Your task to perform on an android device: empty trash in the gmail app Image 0: 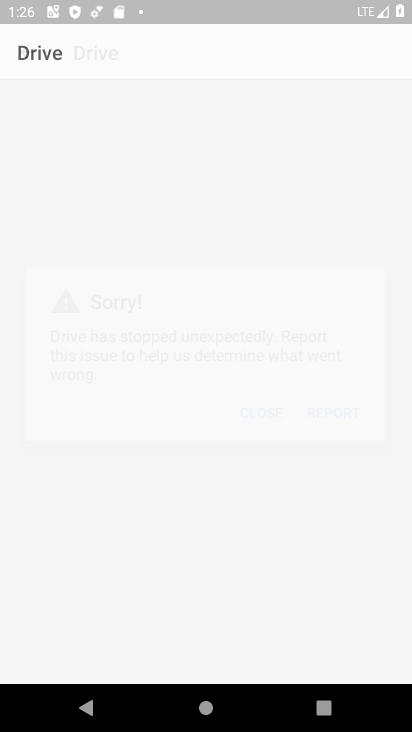
Step 0: click (57, 357)
Your task to perform on an android device: empty trash in the gmail app Image 1: 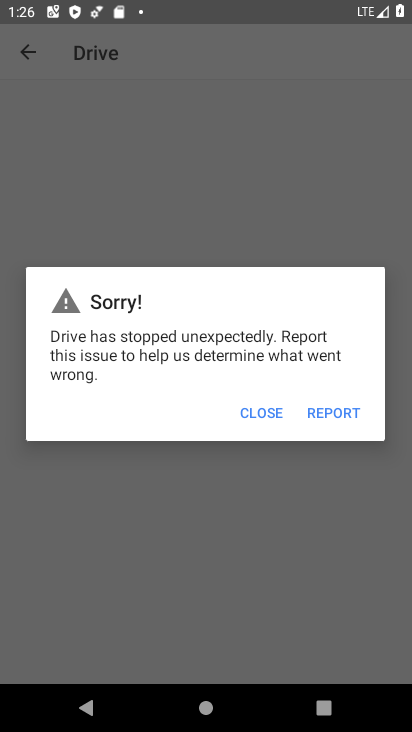
Step 1: click (269, 413)
Your task to perform on an android device: empty trash in the gmail app Image 2: 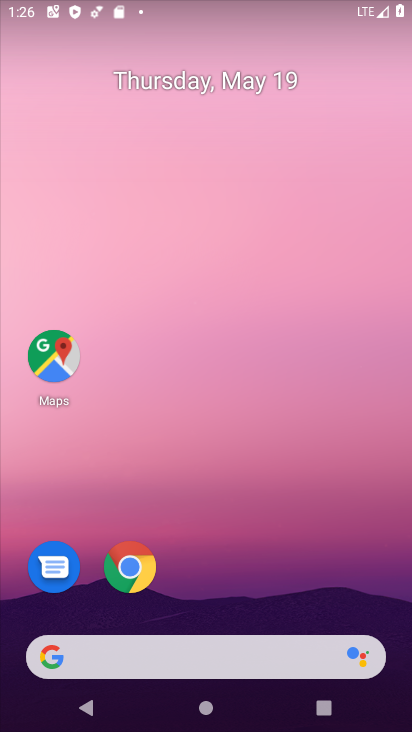
Step 2: click (48, 342)
Your task to perform on an android device: empty trash in the gmail app Image 3: 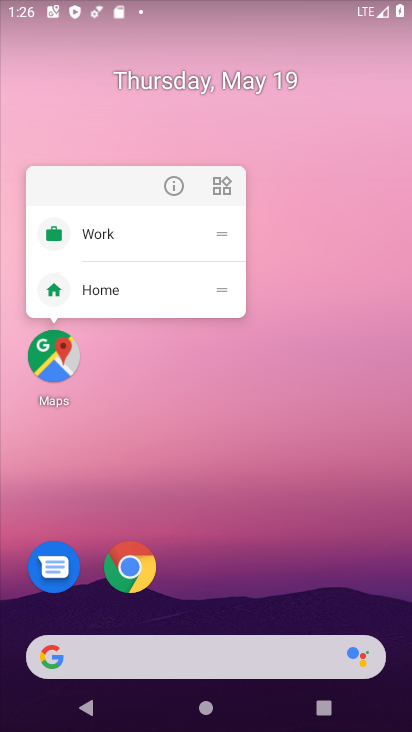
Step 3: click (48, 366)
Your task to perform on an android device: empty trash in the gmail app Image 4: 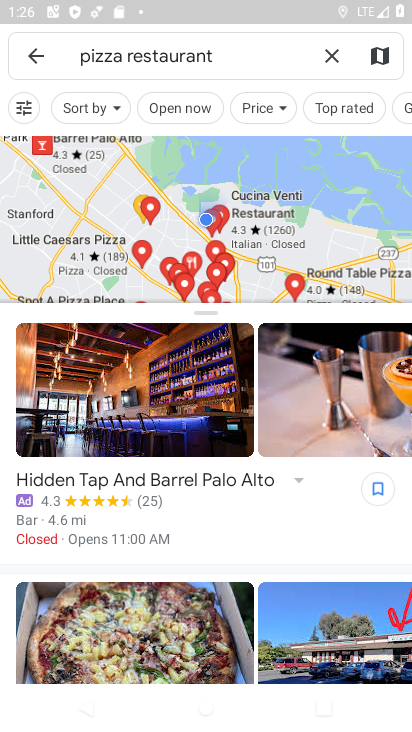
Step 4: press home button
Your task to perform on an android device: empty trash in the gmail app Image 5: 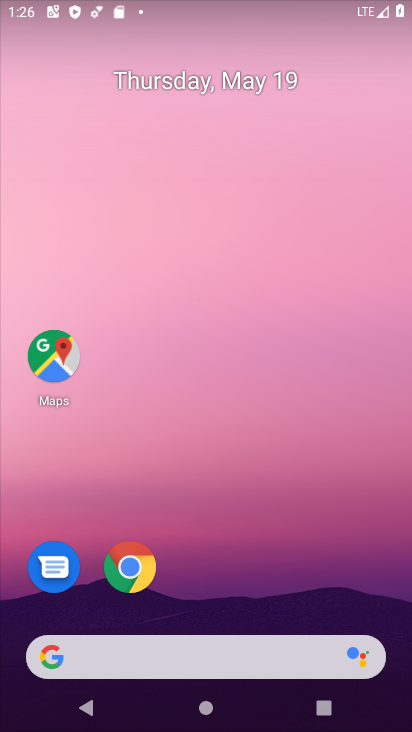
Step 5: drag from (60, 522) to (217, 106)
Your task to perform on an android device: empty trash in the gmail app Image 6: 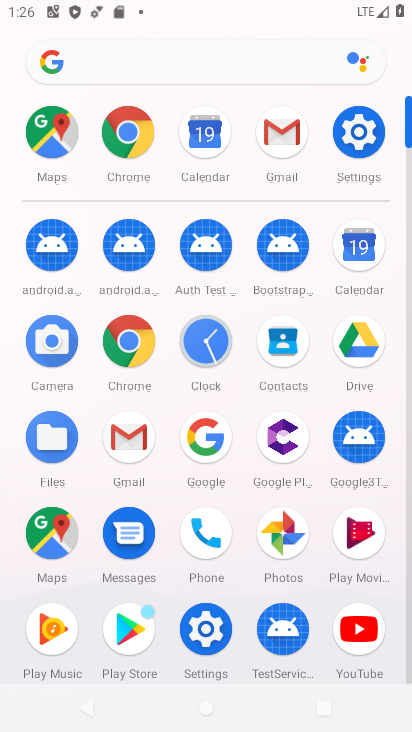
Step 6: click (287, 131)
Your task to perform on an android device: empty trash in the gmail app Image 7: 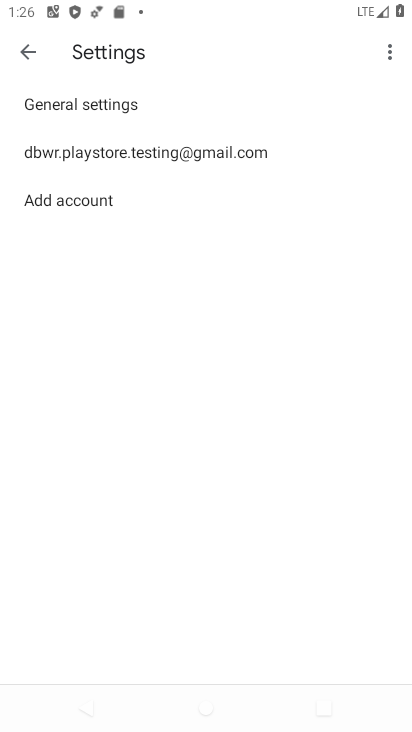
Step 7: click (186, 143)
Your task to perform on an android device: empty trash in the gmail app Image 8: 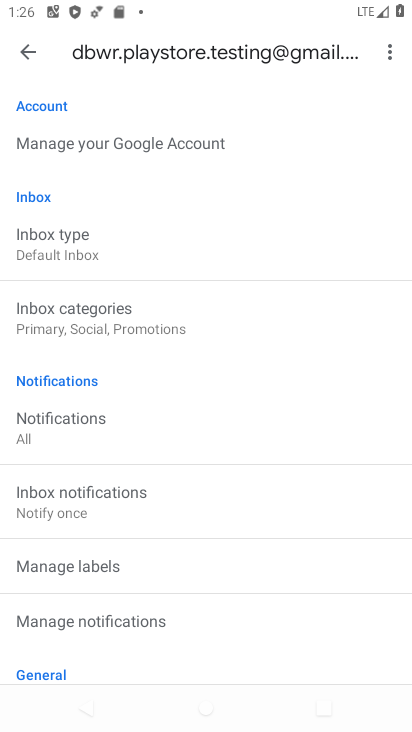
Step 8: press back button
Your task to perform on an android device: empty trash in the gmail app Image 9: 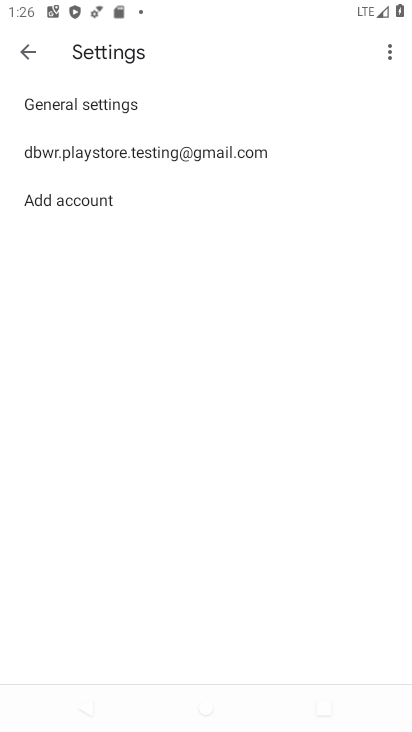
Step 9: press back button
Your task to perform on an android device: empty trash in the gmail app Image 10: 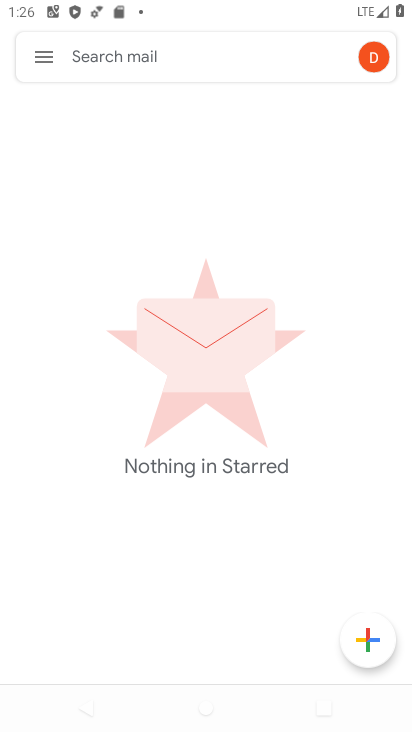
Step 10: click (32, 63)
Your task to perform on an android device: empty trash in the gmail app Image 11: 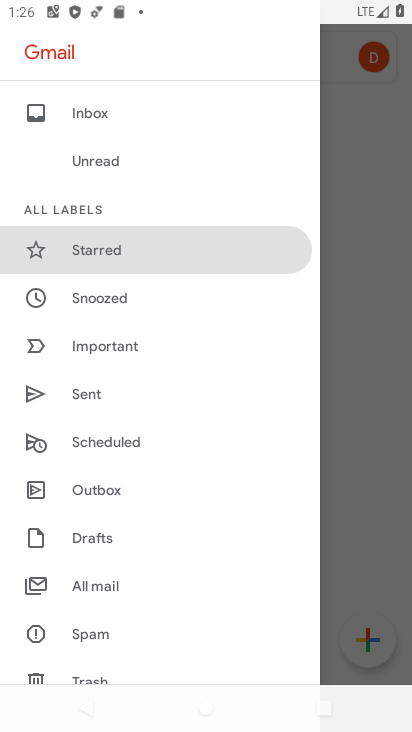
Step 11: click (57, 674)
Your task to perform on an android device: empty trash in the gmail app Image 12: 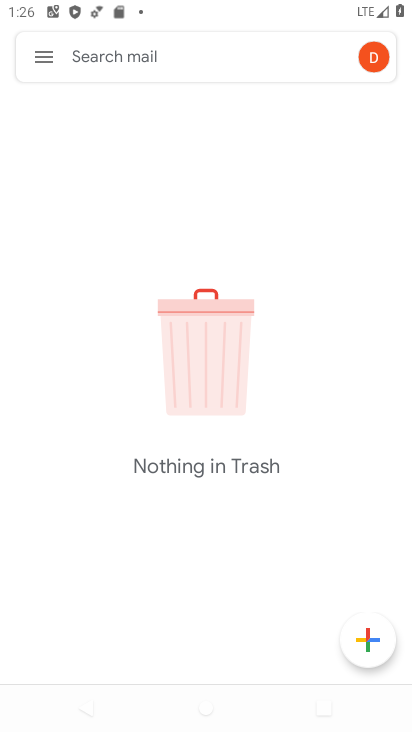
Step 12: task complete